Your task to perform on an android device: toggle location history Image 0: 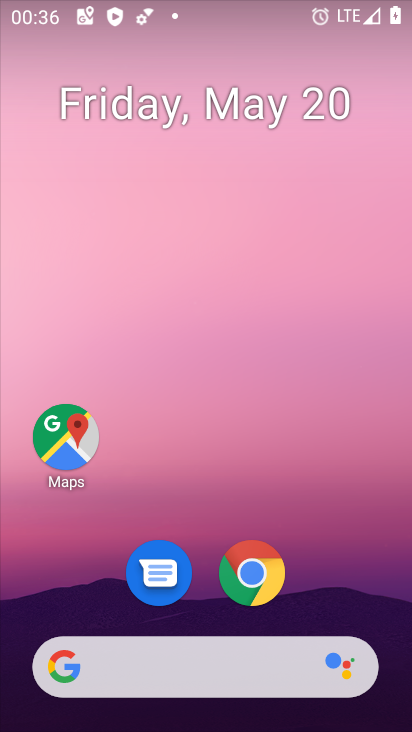
Step 0: drag from (215, 620) to (212, 173)
Your task to perform on an android device: toggle location history Image 1: 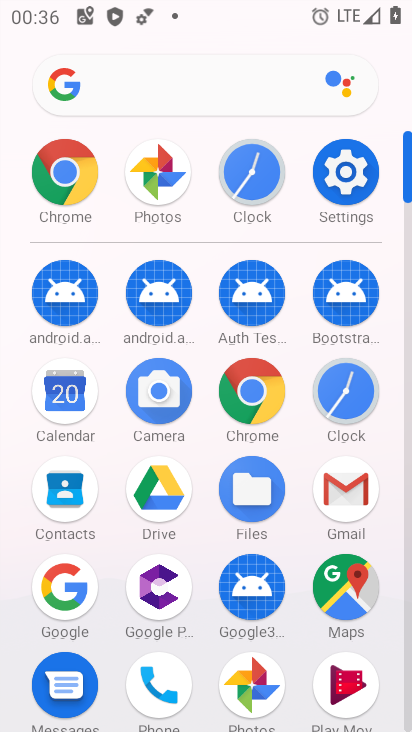
Step 1: click (340, 183)
Your task to perform on an android device: toggle location history Image 2: 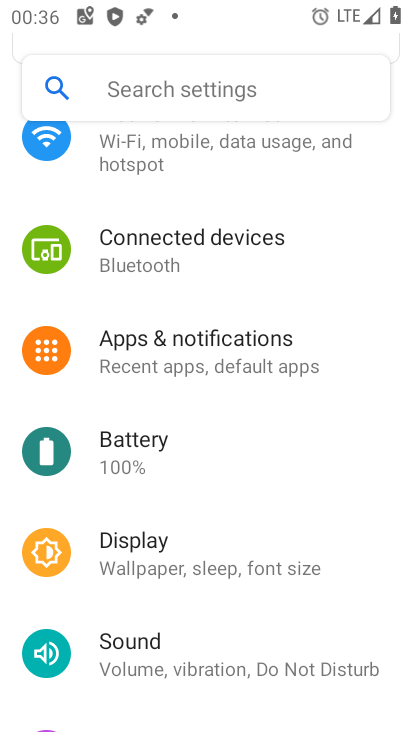
Step 2: drag from (237, 607) to (238, 297)
Your task to perform on an android device: toggle location history Image 3: 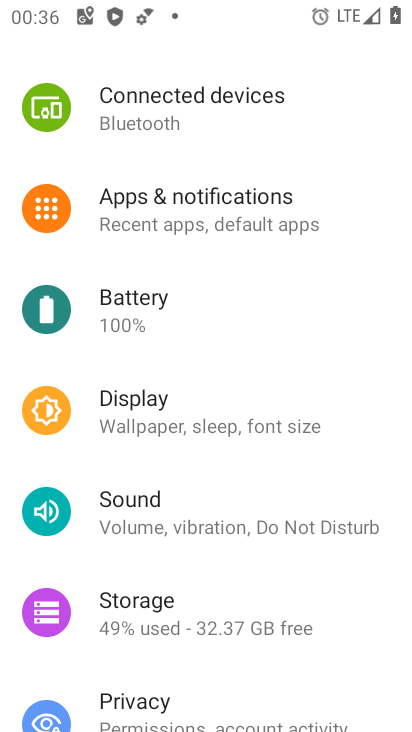
Step 3: drag from (211, 674) to (199, 311)
Your task to perform on an android device: toggle location history Image 4: 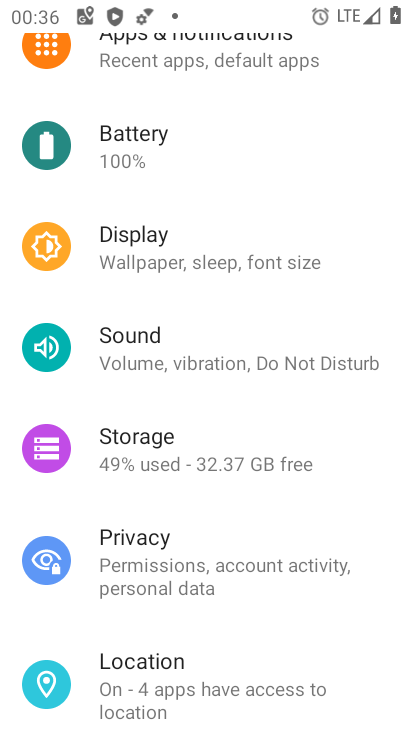
Step 4: click (144, 657)
Your task to perform on an android device: toggle location history Image 5: 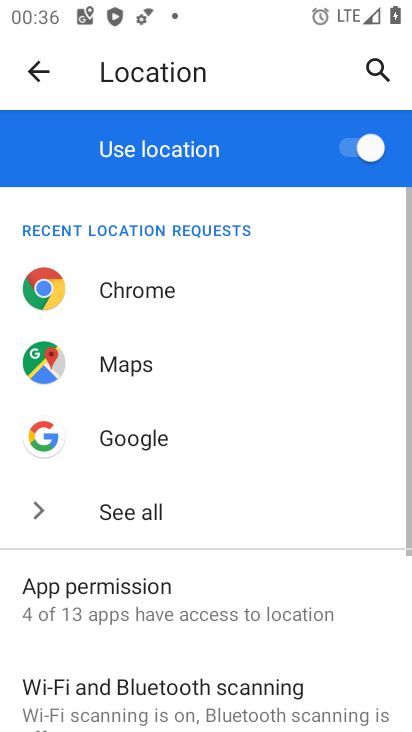
Step 5: drag from (232, 629) to (234, 383)
Your task to perform on an android device: toggle location history Image 6: 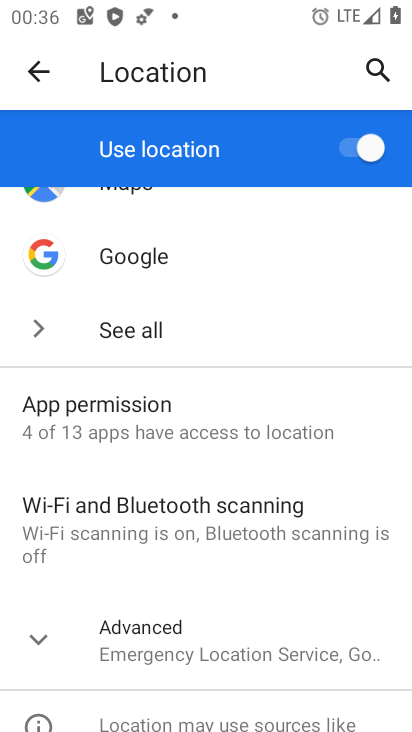
Step 6: click (220, 622)
Your task to perform on an android device: toggle location history Image 7: 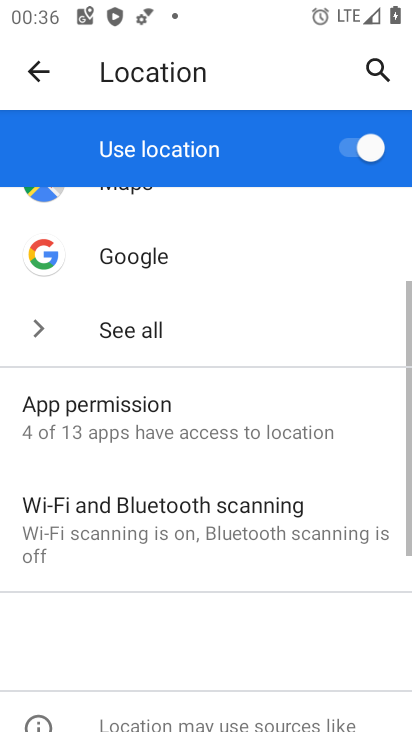
Step 7: click (236, 378)
Your task to perform on an android device: toggle location history Image 8: 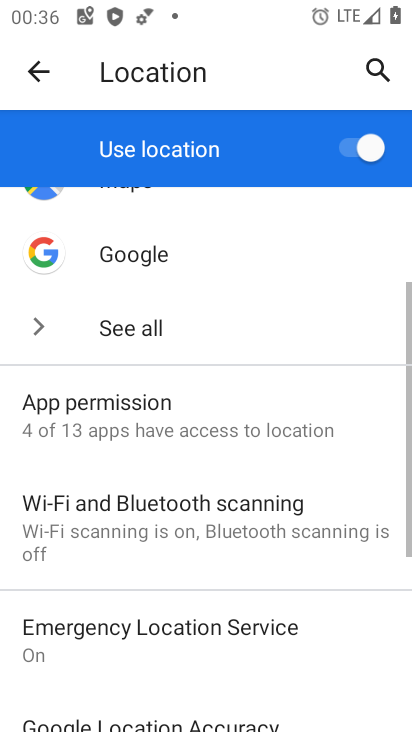
Step 8: drag from (200, 599) to (218, 298)
Your task to perform on an android device: toggle location history Image 9: 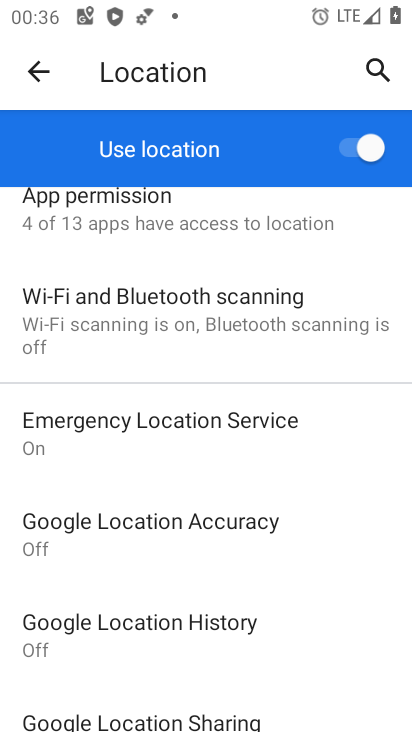
Step 9: click (223, 632)
Your task to perform on an android device: toggle location history Image 10: 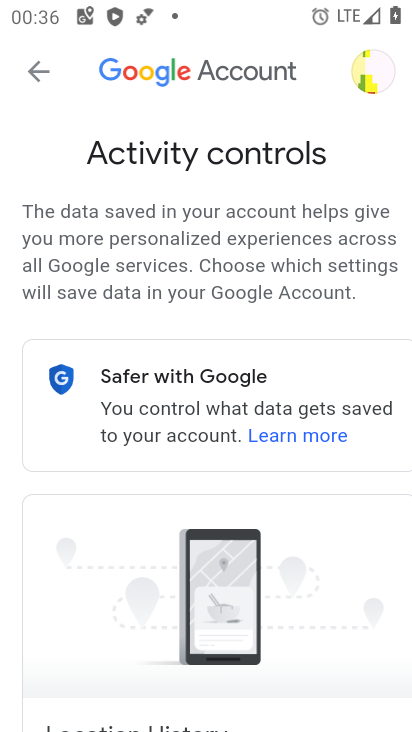
Step 10: drag from (211, 629) to (221, 265)
Your task to perform on an android device: toggle location history Image 11: 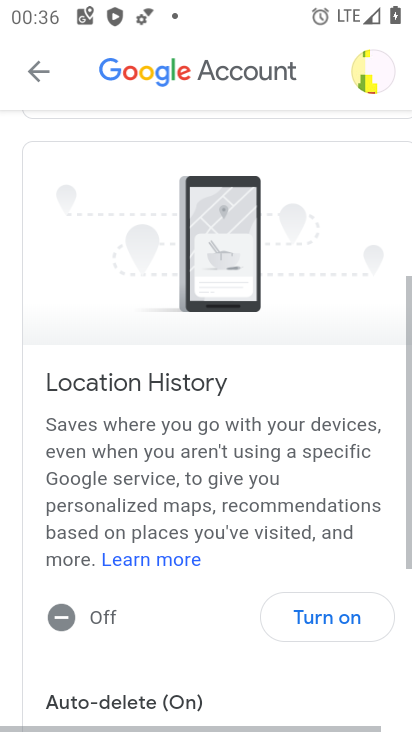
Step 11: drag from (228, 550) to (239, 300)
Your task to perform on an android device: toggle location history Image 12: 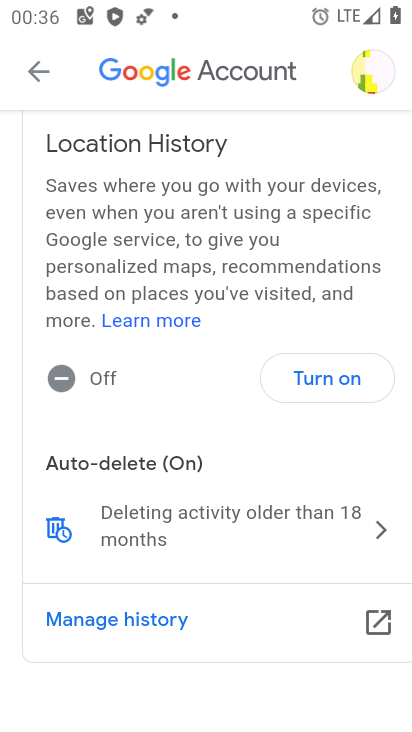
Step 12: click (352, 371)
Your task to perform on an android device: toggle location history Image 13: 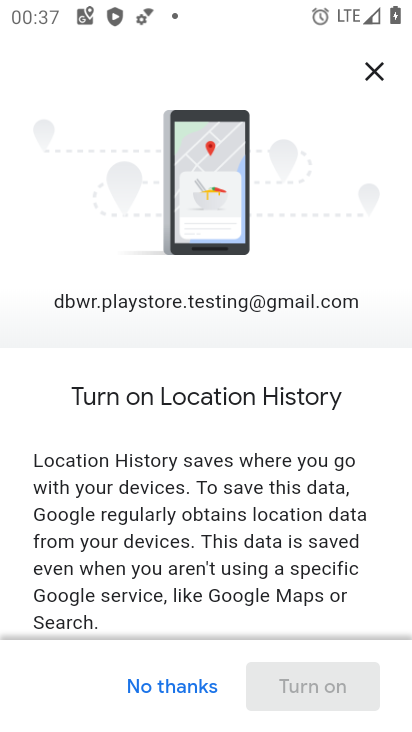
Step 13: drag from (292, 533) to (263, 162)
Your task to perform on an android device: toggle location history Image 14: 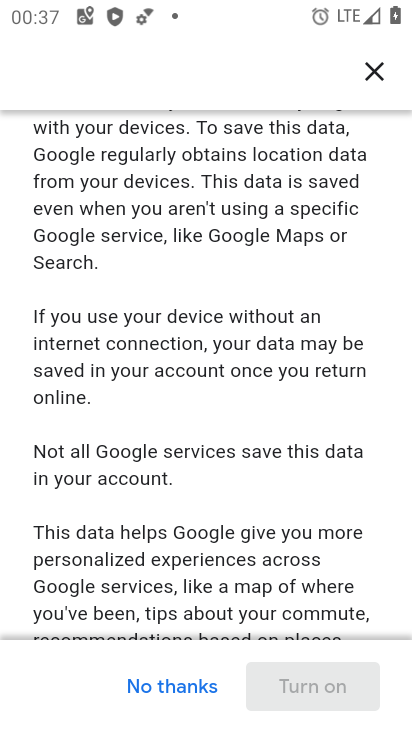
Step 14: drag from (265, 497) to (288, 132)
Your task to perform on an android device: toggle location history Image 15: 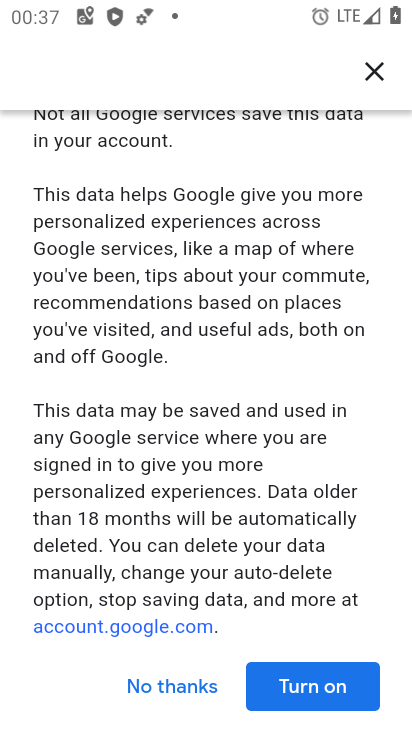
Step 15: drag from (284, 478) to (285, 215)
Your task to perform on an android device: toggle location history Image 16: 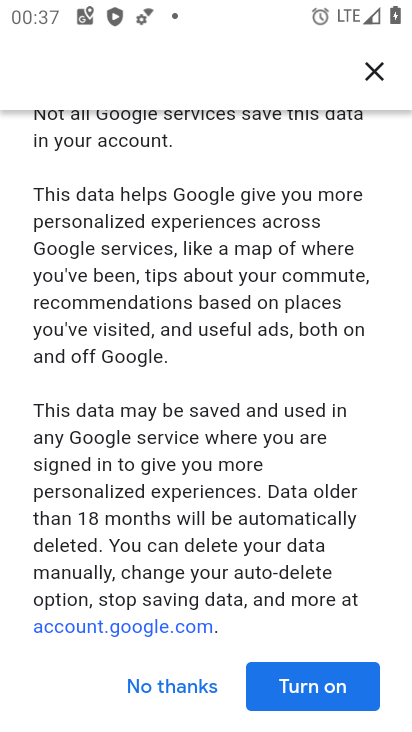
Step 16: click (305, 683)
Your task to perform on an android device: toggle location history Image 17: 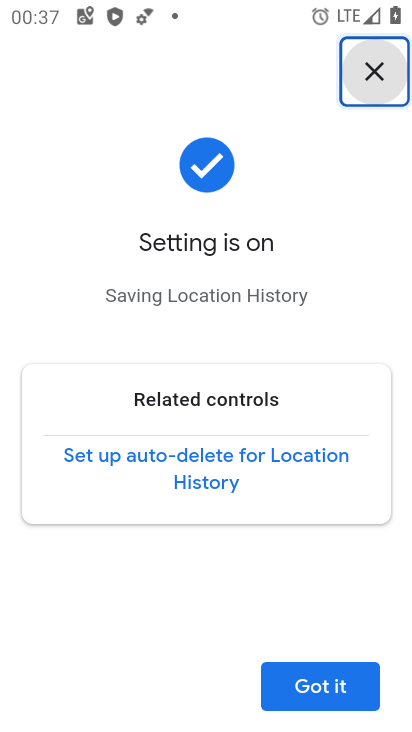
Step 17: task complete